Your task to perform on an android device: turn off airplane mode Image 0: 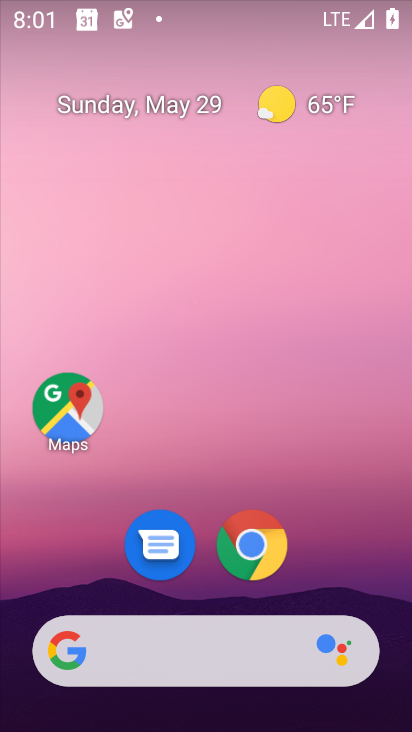
Step 0: drag from (186, 600) to (306, 139)
Your task to perform on an android device: turn off airplane mode Image 1: 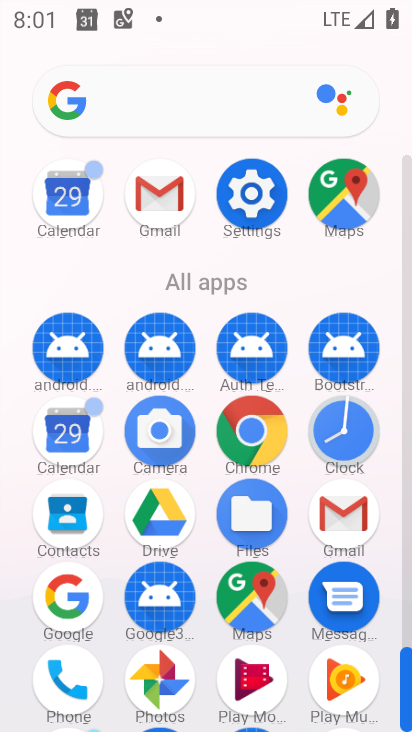
Step 1: click (242, 200)
Your task to perform on an android device: turn off airplane mode Image 2: 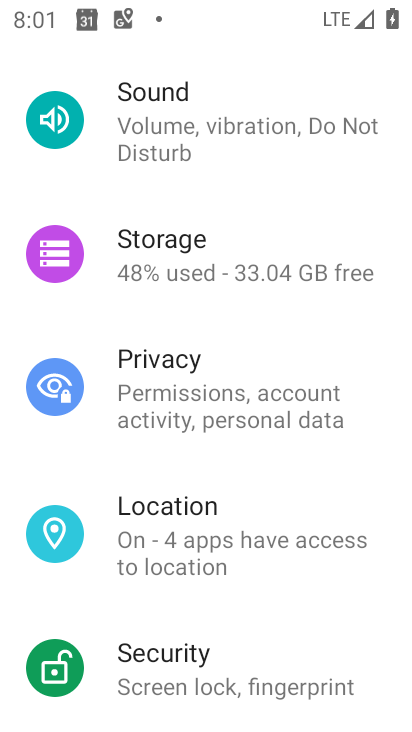
Step 2: drag from (258, 124) to (198, 602)
Your task to perform on an android device: turn off airplane mode Image 3: 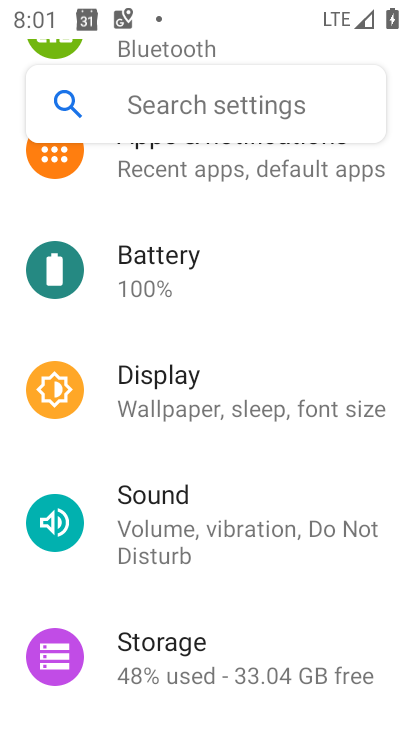
Step 3: drag from (192, 217) to (142, 569)
Your task to perform on an android device: turn off airplane mode Image 4: 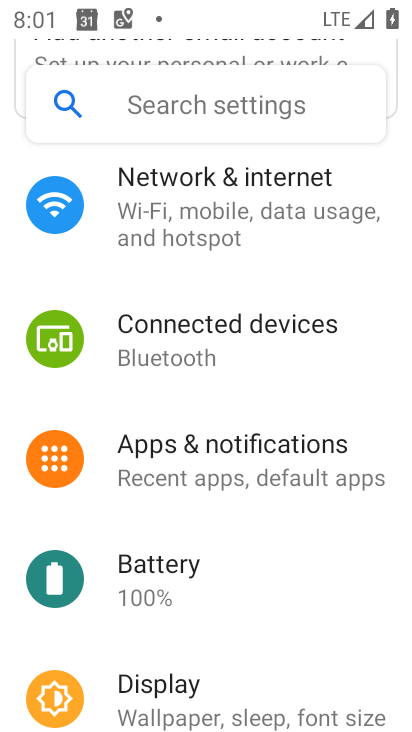
Step 4: click (203, 222)
Your task to perform on an android device: turn off airplane mode Image 5: 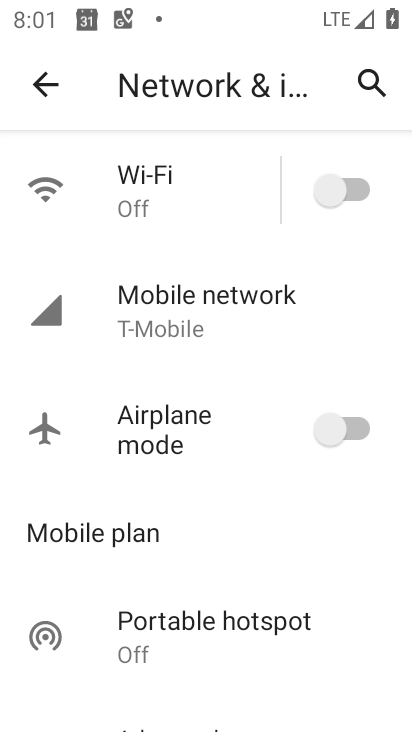
Step 5: task complete